Your task to perform on an android device: change the upload size in google photos Image 0: 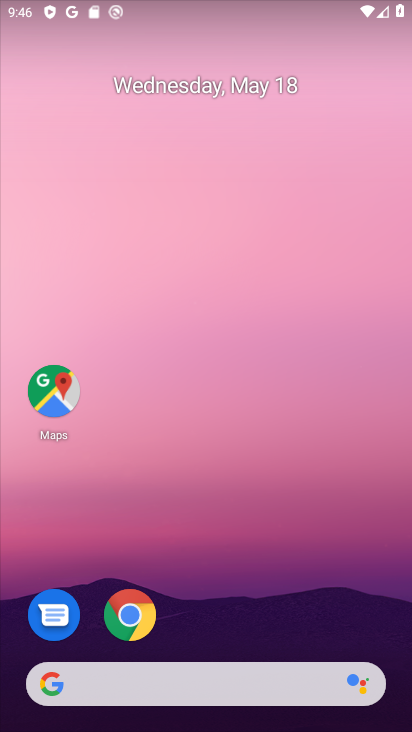
Step 0: drag from (309, 594) to (378, 41)
Your task to perform on an android device: change the upload size in google photos Image 1: 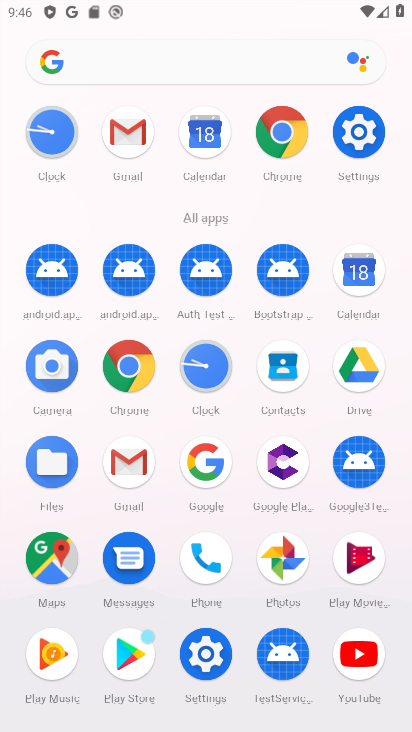
Step 1: click (282, 557)
Your task to perform on an android device: change the upload size in google photos Image 2: 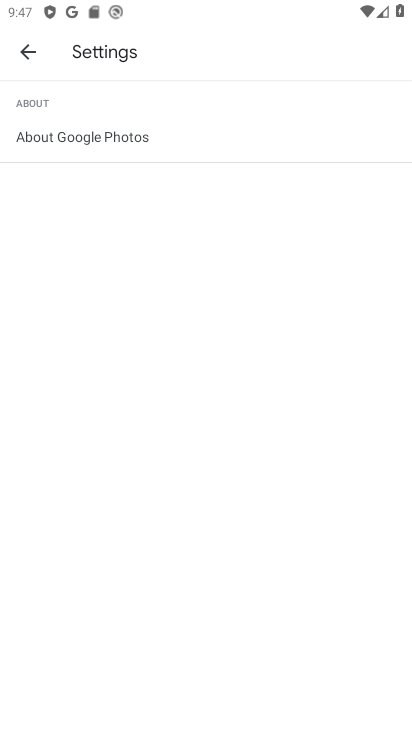
Step 2: click (33, 49)
Your task to perform on an android device: change the upload size in google photos Image 3: 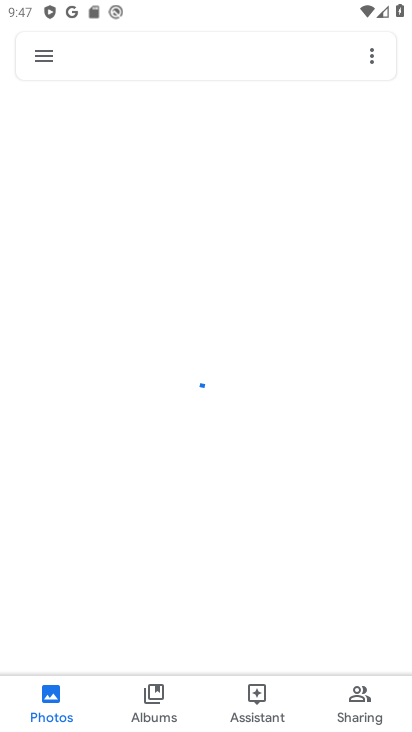
Step 3: click (48, 65)
Your task to perform on an android device: change the upload size in google photos Image 4: 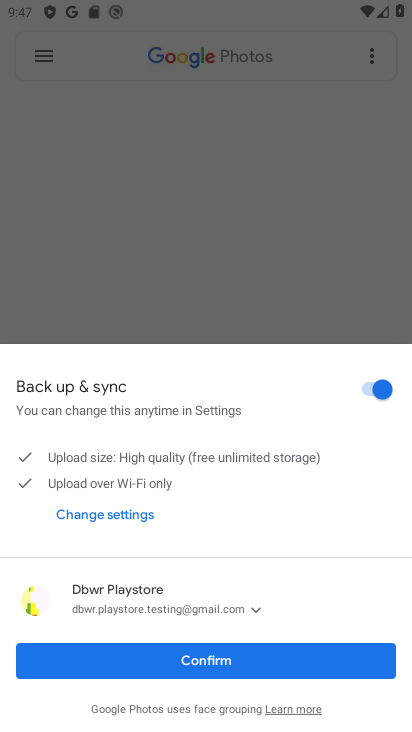
Step 4: click (188, 666)
Your task to perform on an android device: change the upload size in google photos Image 5: 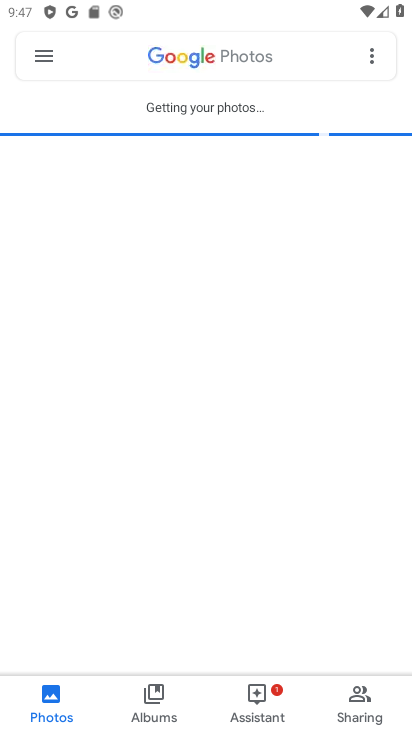
Step 5: click (38, 51)
Your task to perform on an android device: change the upload size in google photos Image 6: 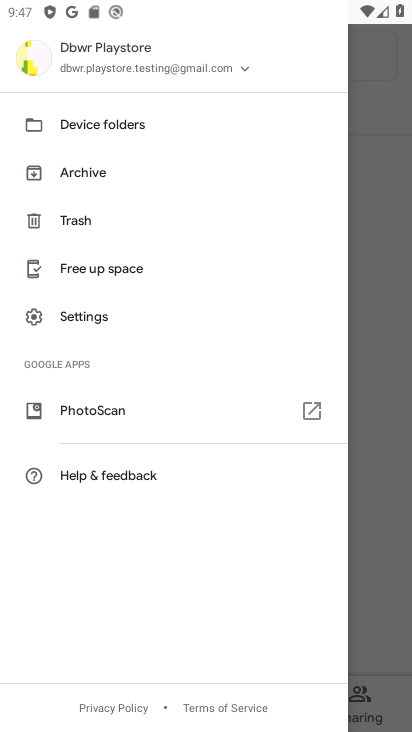
Step 6: click (88, 313)
Your task to perform on an android device: change the upload size in google photos Image 7: 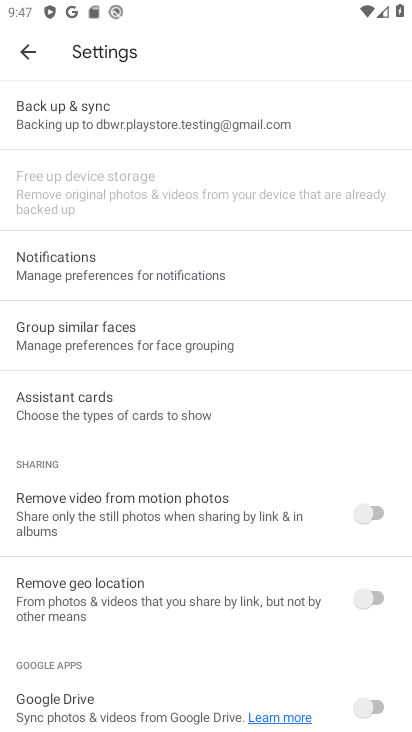
Step 7: click (161, 107)
Your task to perform on an android device: change the upload size in google photos Image 8: 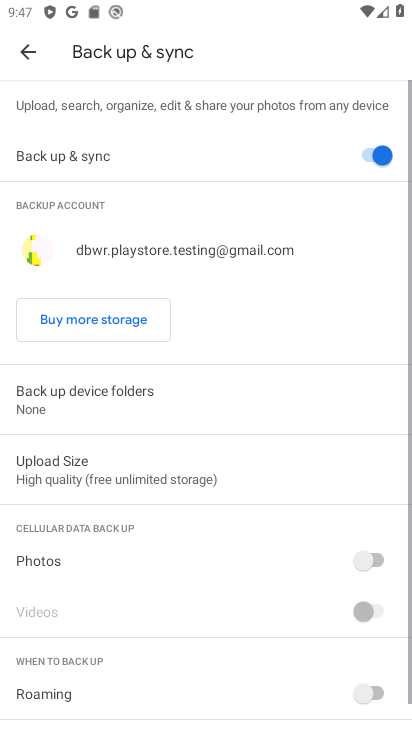
Step 8: click (154, 479)
Your task to perform on an android device: change the upload size in google photos Image 9: 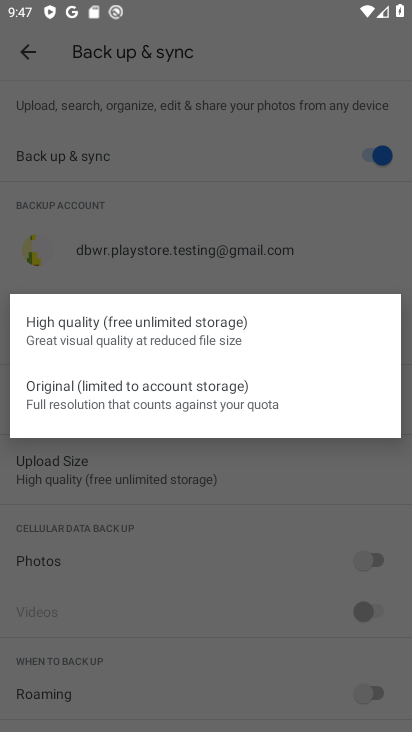
Step 9: click (135, 408)
Your task to perform on an android device: change the upload size in google photos Image 10: 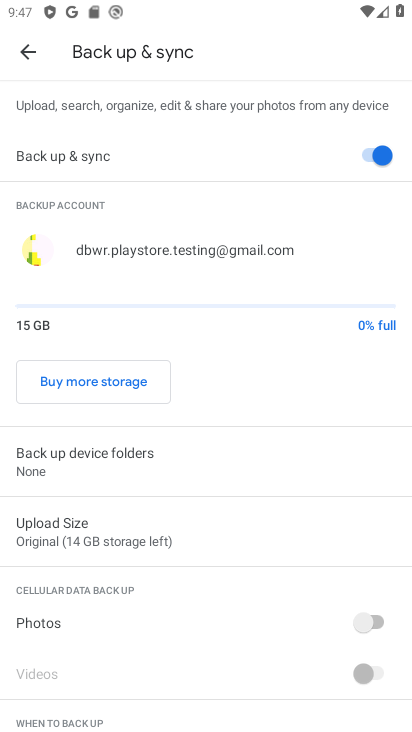
Step 10: task complete